Your task to perform on an android device: Open Maps and search for coffee Image 0: 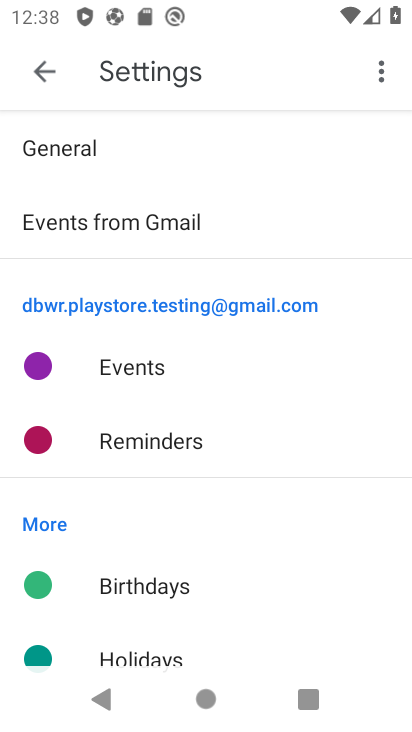
Step 0: press home button
Your task to perform on an android device: Open Maps and search for coffee Image 1: 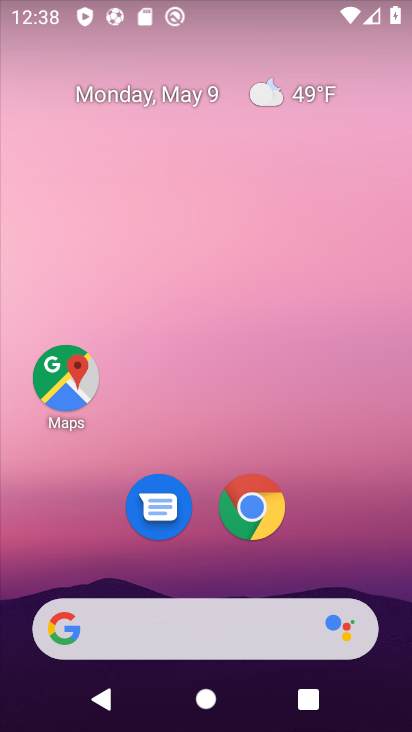
Step 1: click (74, 389)
Your task to perform on an android device: Open Maps and search for coffee Image 2: 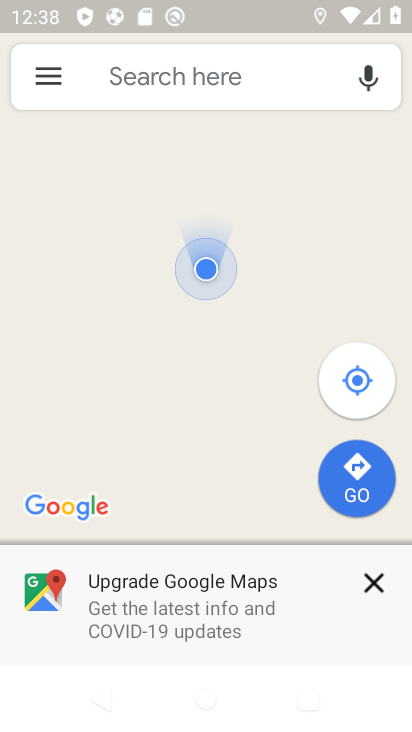
Step 2: click (136, 74)
Your task to perform on an android device: Open Maps and search for coffee Image 3: 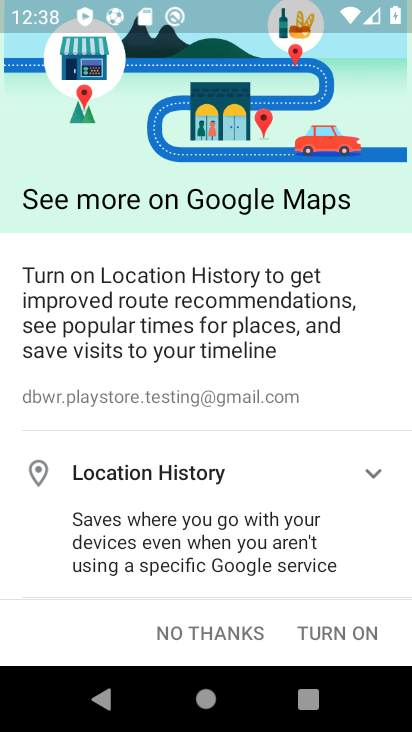
Step 3: click (353, 636)
Your task to perform on an android device: Open Maps and search for coffee Image 4: 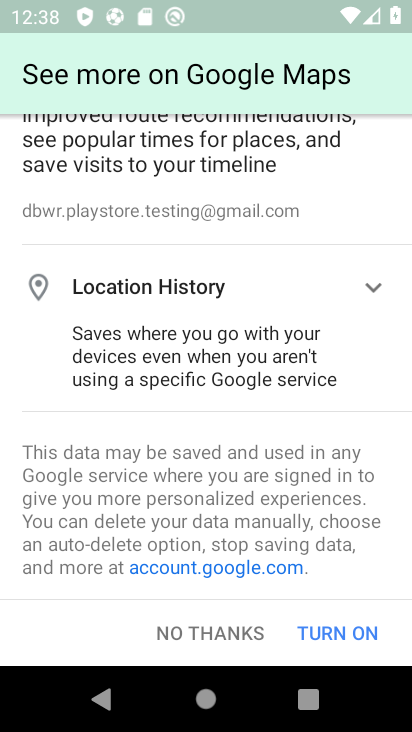
Step 4: click (335, 639)
Your task to perform on an android device: Open Maps and search for coffee Image 5: 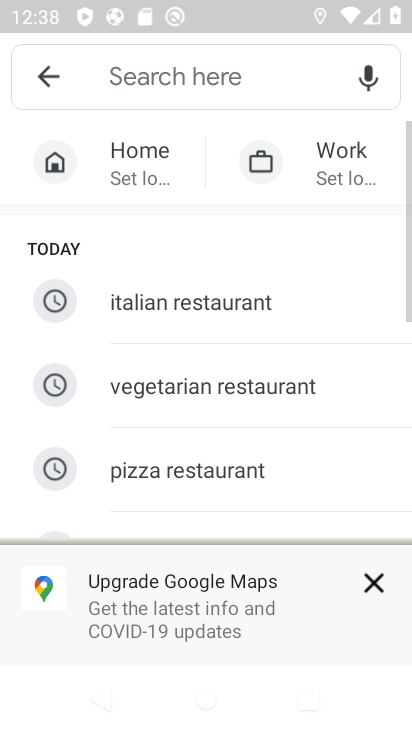
Step 5: click (160, 77)
Your task to perform on an android device: Open Maps and search for coffee Image 6: 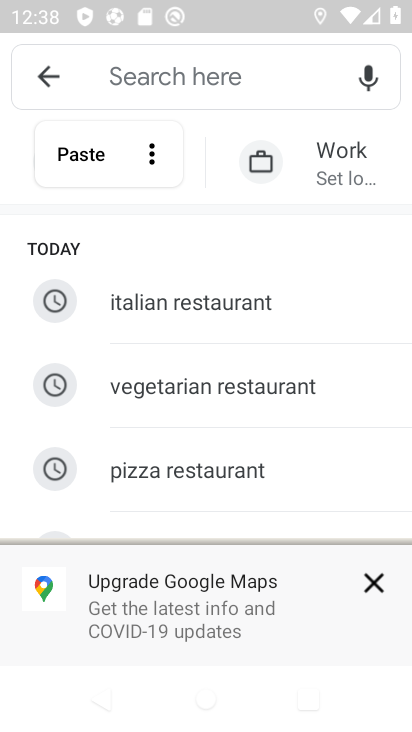
Step 6: type "coffee"
Your task to perform on an android device: Open Maps and search for coffee Image 7: 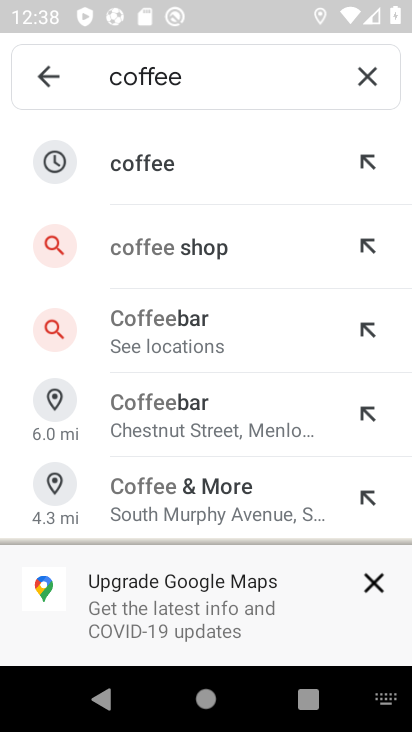
Step 7: click (167, 173)
Your task to perform on an android device: Open Maps and search for coffee Image 8: 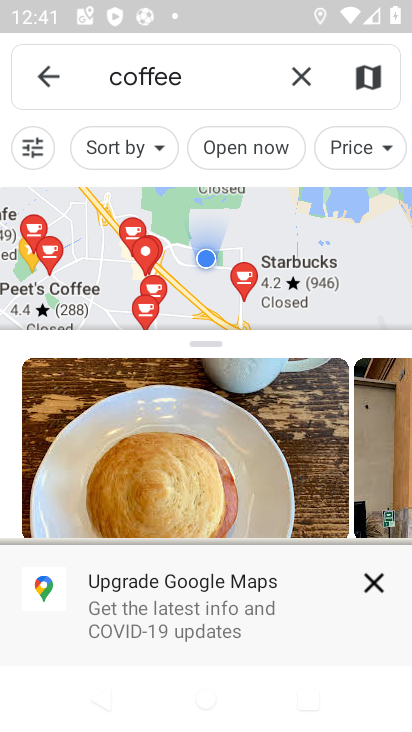
Step 8: click (372, 573)
Your task to perform on an android device: Open Maps and search for coffee Image 9: 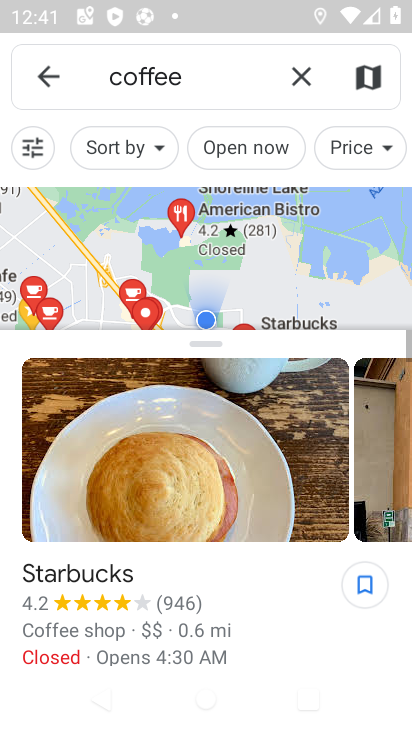
Step 9: task complete